Your task to perform on an android device: open sync settings in chrome Image 0: 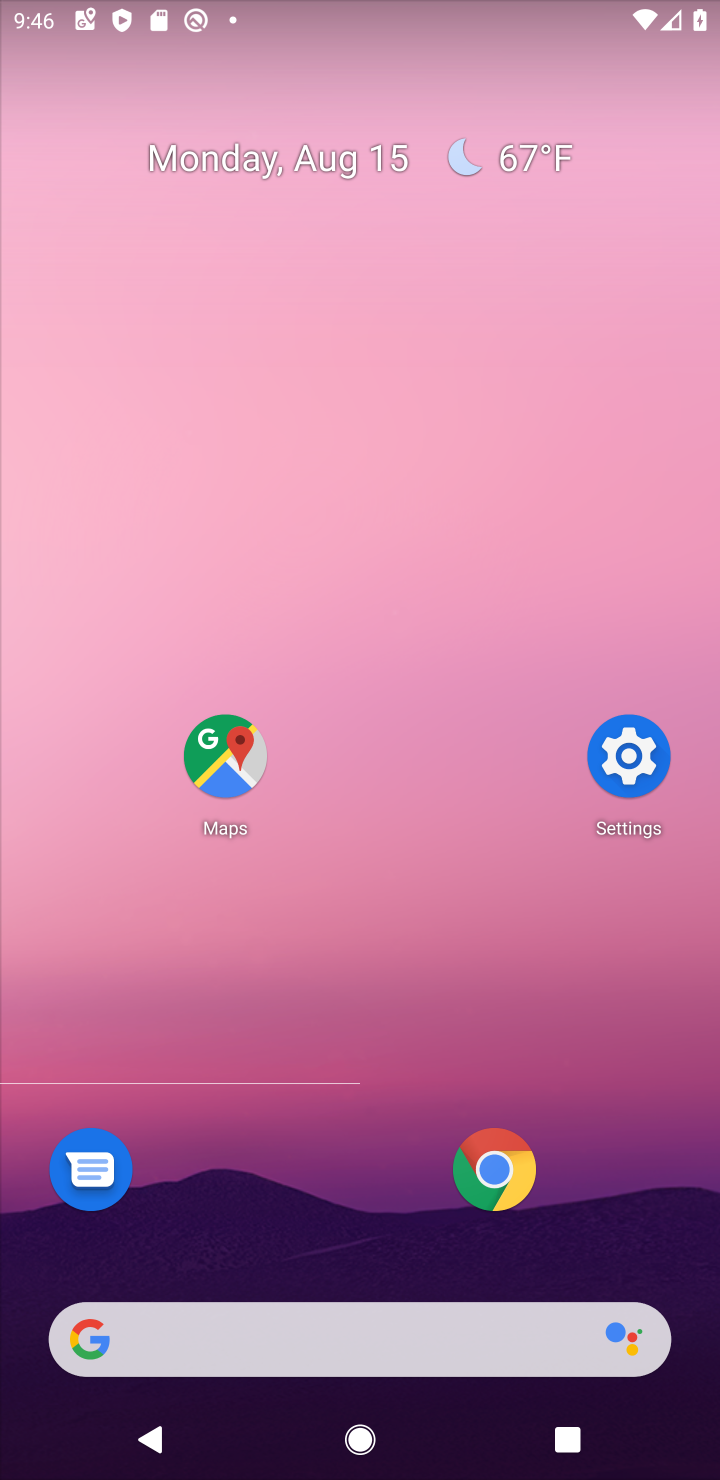
Step 0: click (508, 1160)
Your task to perform on an android device: open sync settings in chrome Image 1: 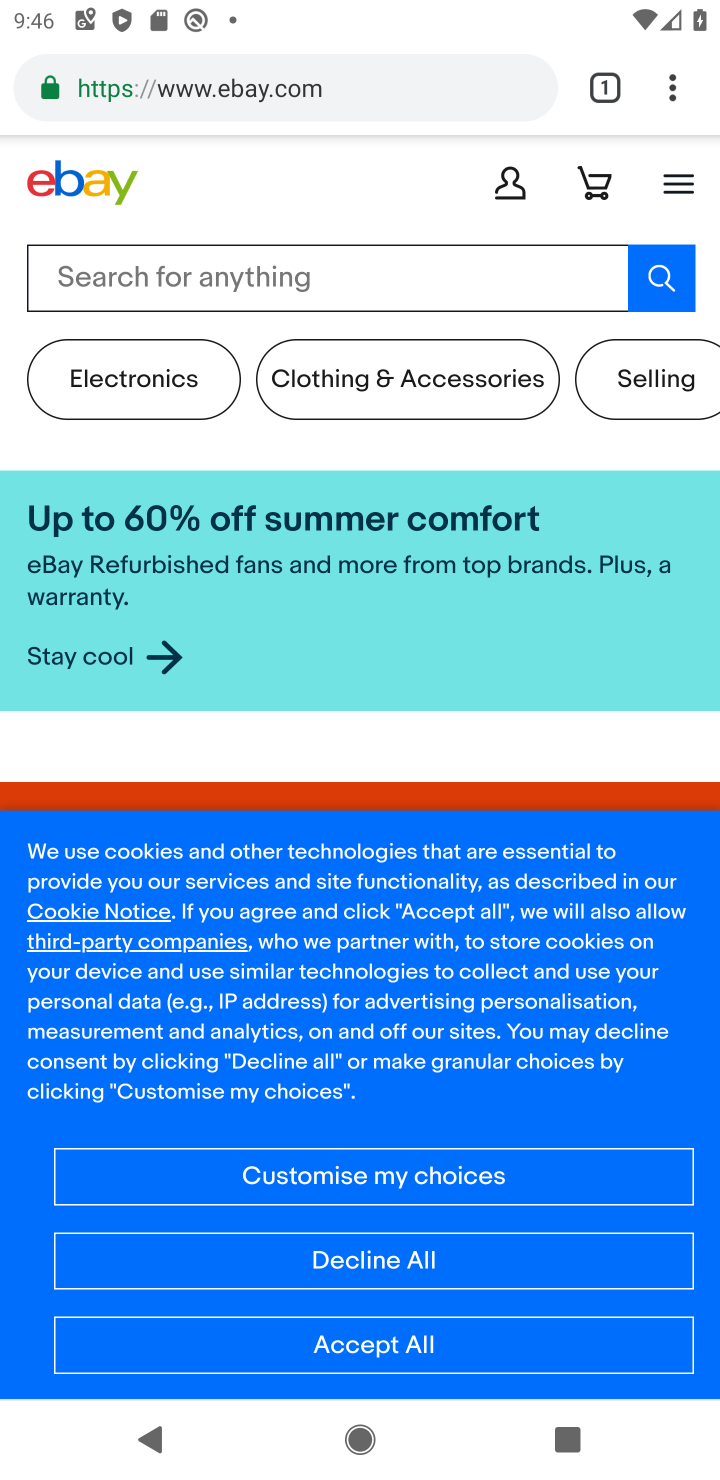
Step 1: drag from (674, 89) to (499, 1054)
Your task to perform on an android device: open sync settings in chrome Image 2: 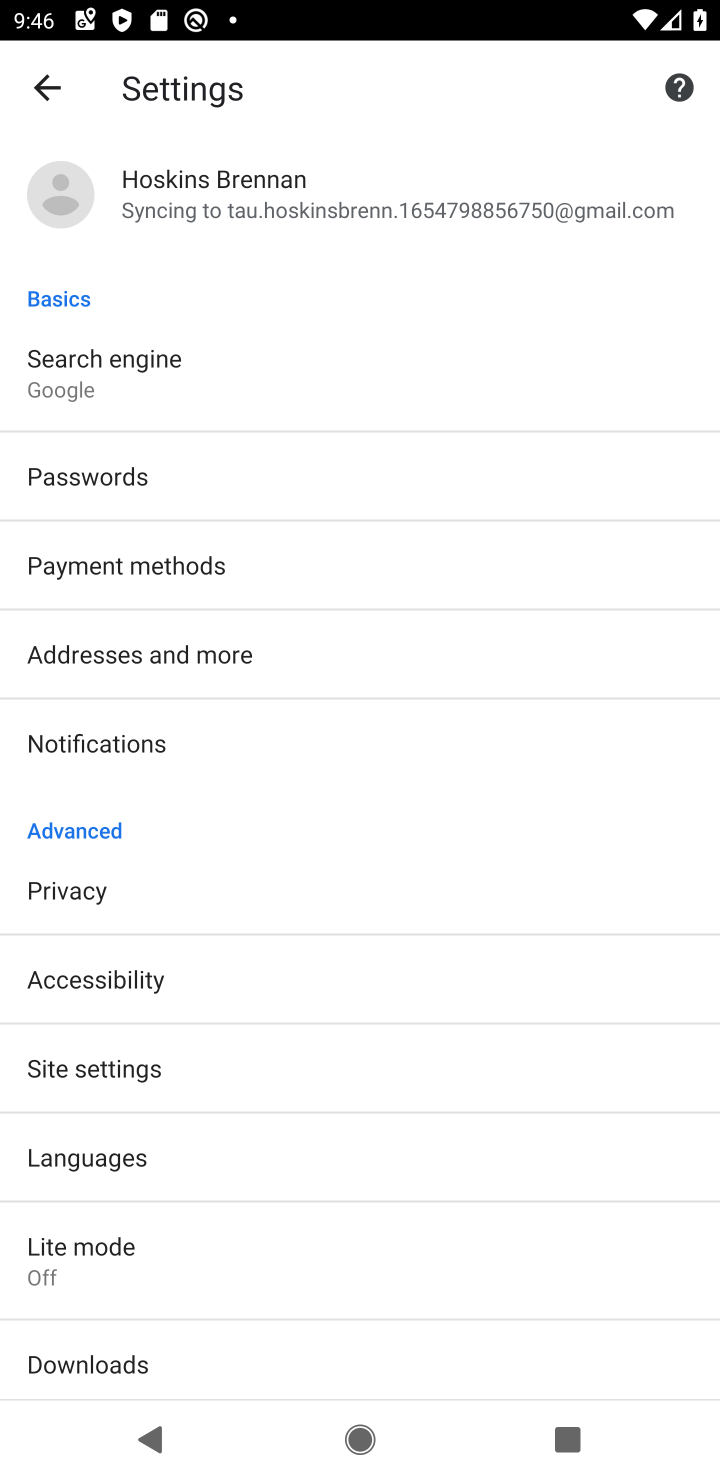
Step 2: click (332, 215)
Your task to perform on an android device: open sync settings in chrome Image 3: 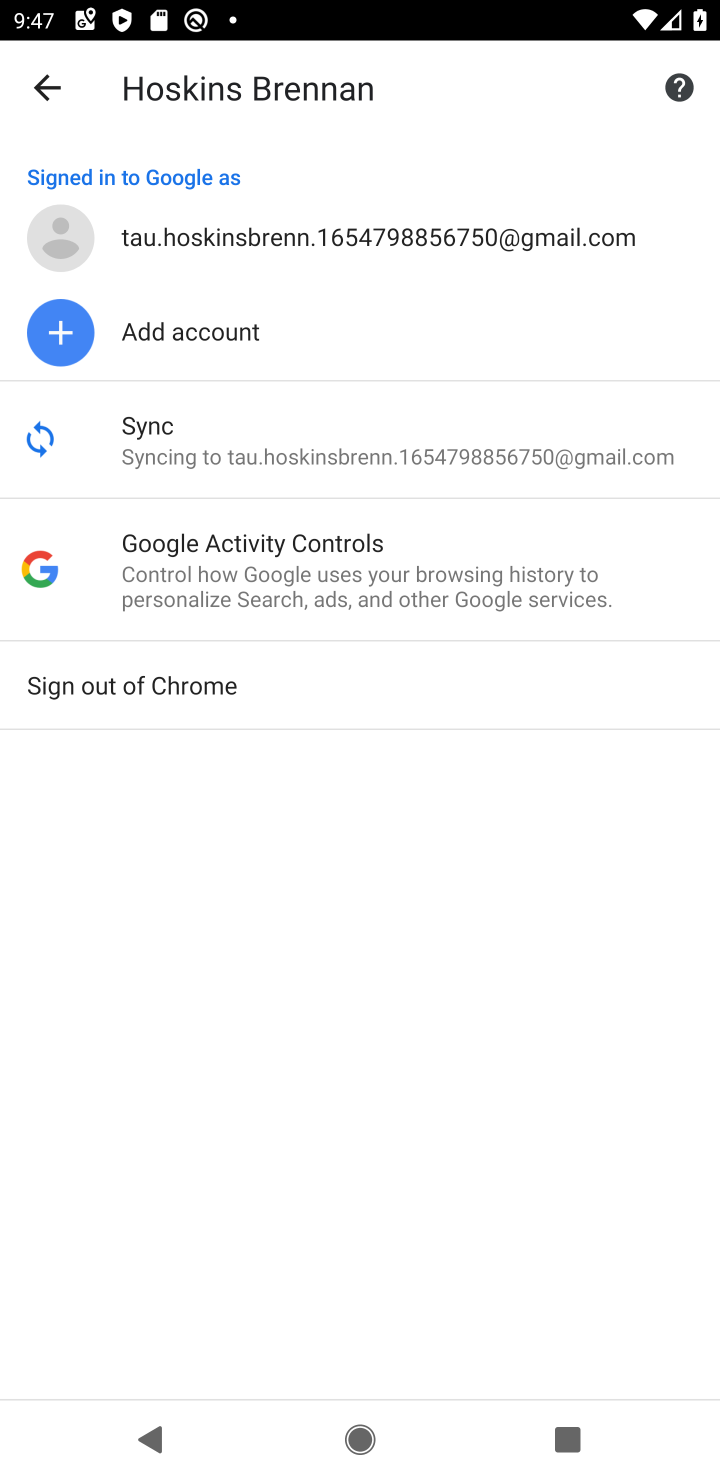
Step 3: click (220, 428)
Your task to perform on an android device: open sync settings in chrome Image 4: 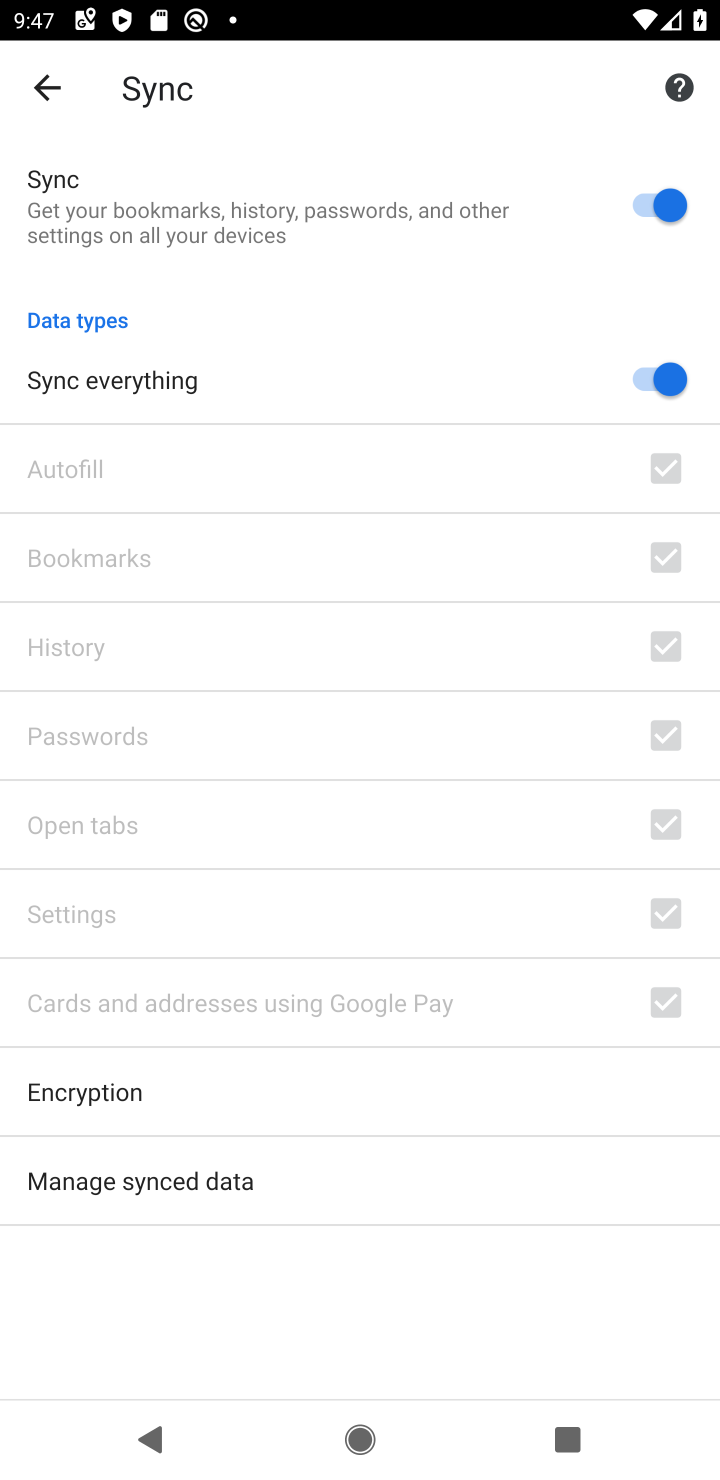
Step 4: task complete